Your task to perform on an android device: find photos in the google photos app Image 0: 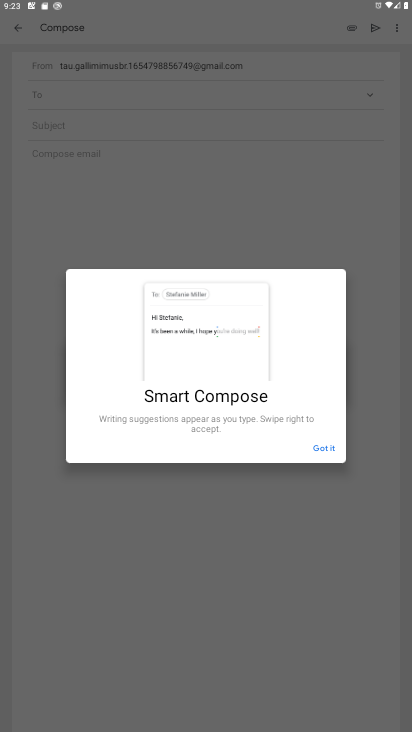
Step 0: press home button
Your task to perform on an android device: find photos in the google photos app Image 1: 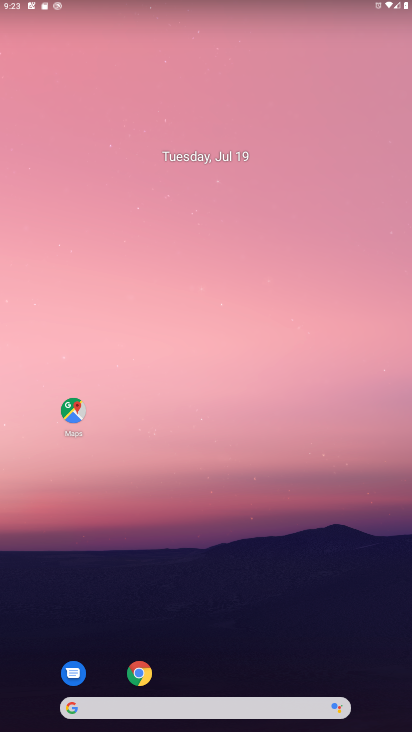
Step 1: drag from (359, 655) to (313, 254)
Your task to perform on an android device: find photos in the google photos app Image 2: 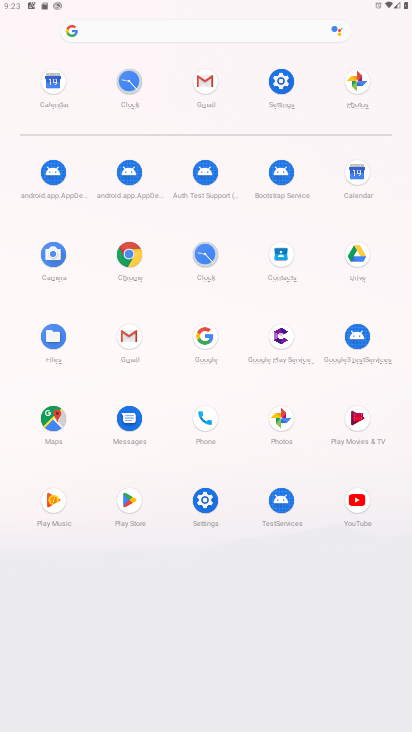
Step 2: click (281, 420)
Your task to perform on an android device: find photos in the google photos app Image 3: 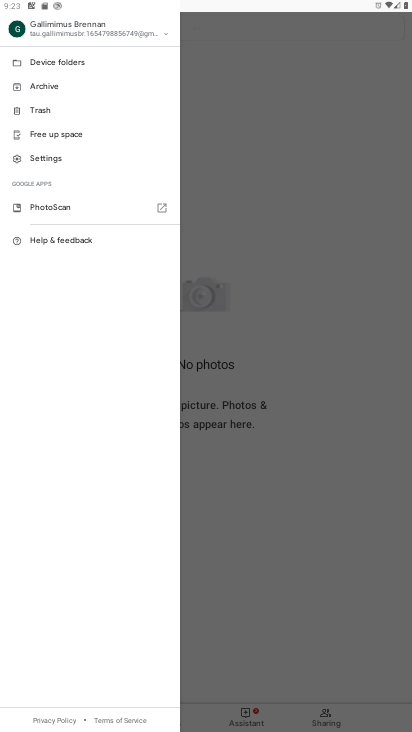
Step 3: click (275, 242)
Your task to perform on an android device: find photos in the google photos app Image 4: 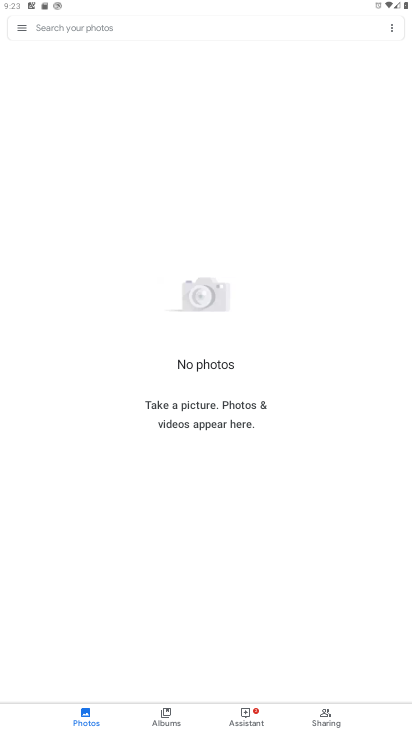
Step 4: task complete